Your task to perform on an android device: turn off priority inbox in the gmail app Image 0: 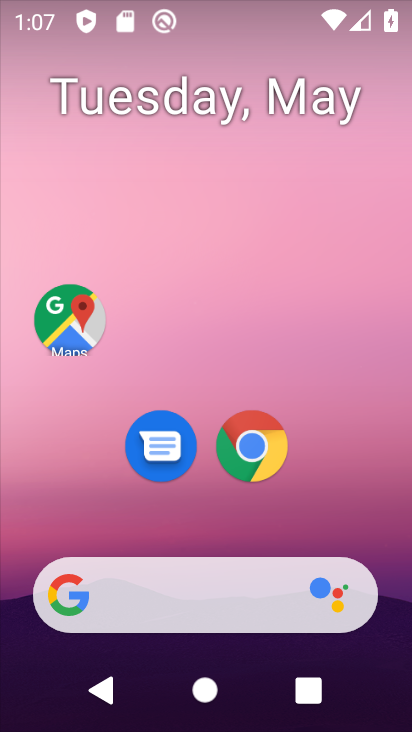
Step 0: drag from (184, 526) to (200, 0)
Your task to perform on an android device: turn off priority inbox in the gmail app Image 1: 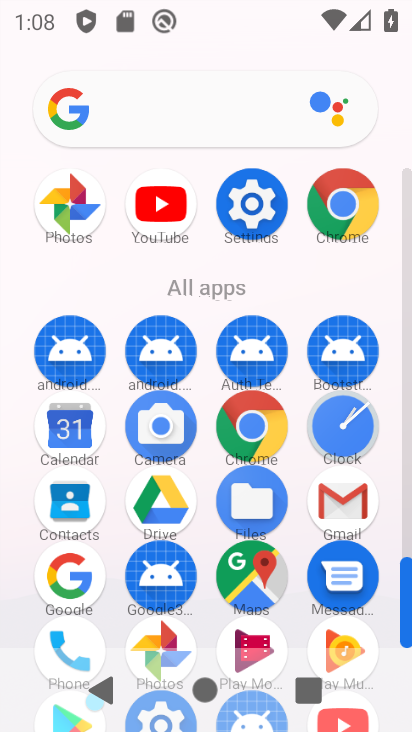
Step 1: click (344, 509)
Your task to perform on an android device: turn off priority inbox in the gmail app Image 2: 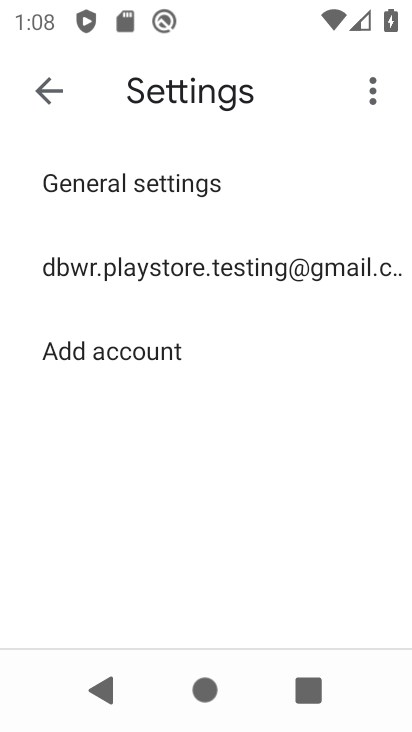
Step 2: click (144, 287)
Your task to perform on an android device: turn off priority inbox in the gmail app Image 3: 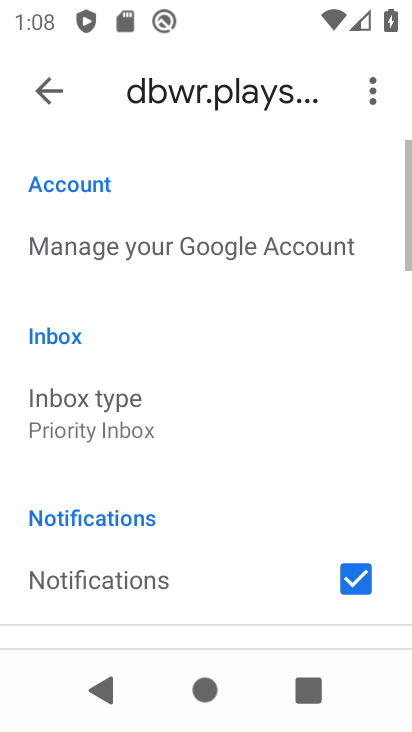
Step 3: click (139, 413)
Your task to perform on an android device: turn off priority inbox in the gmail app Image 4: 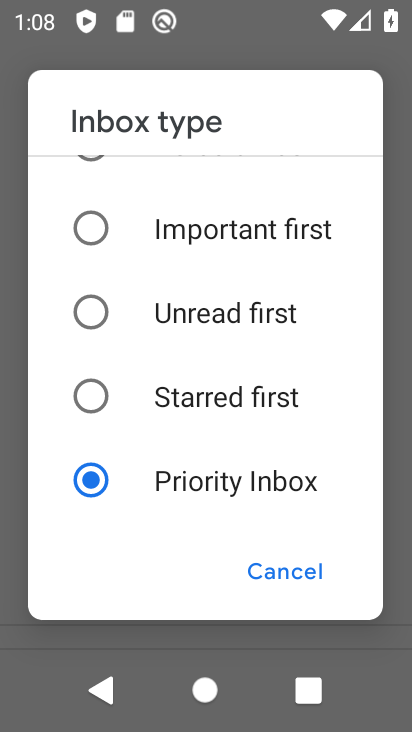
Step 4: click (138, 185)
Your task to perform on an android device: turn off priority inbox in the gmail app Image 5: 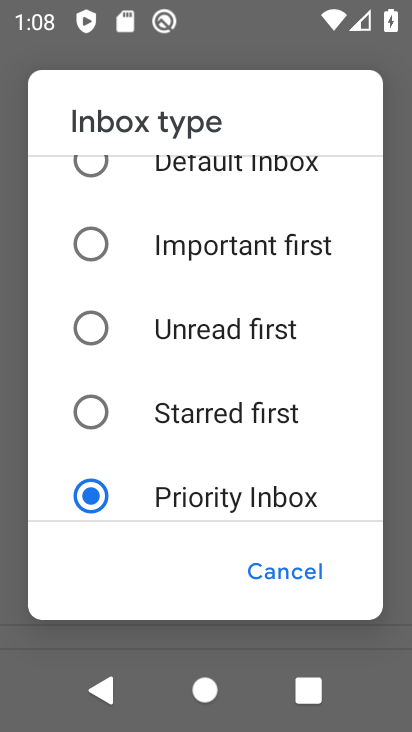
Step 5: click (215, 149)
Your task to perform on an android device: turn off priority inbox in the gmail app Image 6: 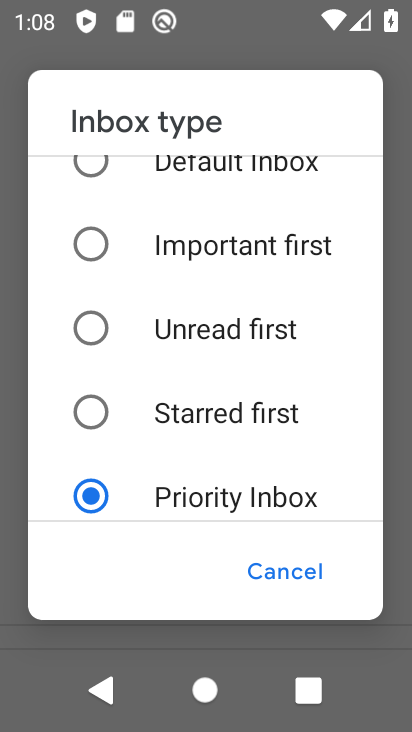
Step 6: task complete